Your task to perform on an android device: turn on the 24-hour format for clock Image 0: 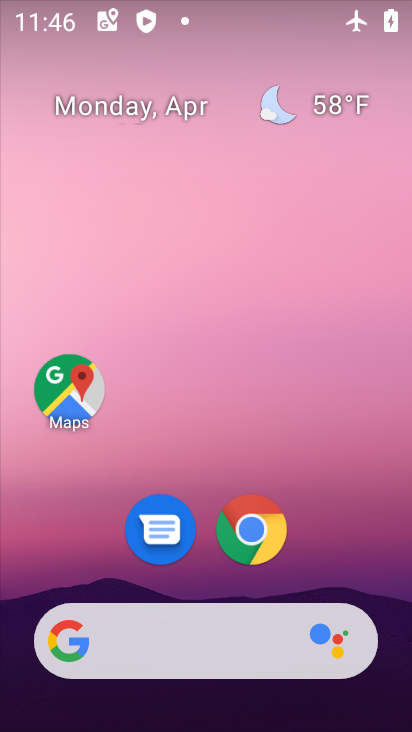
Step 0: drag from (392, 594) to (275, 127)
Your task to perform on an android device: turn on the 24-hour format for clock Image 1: 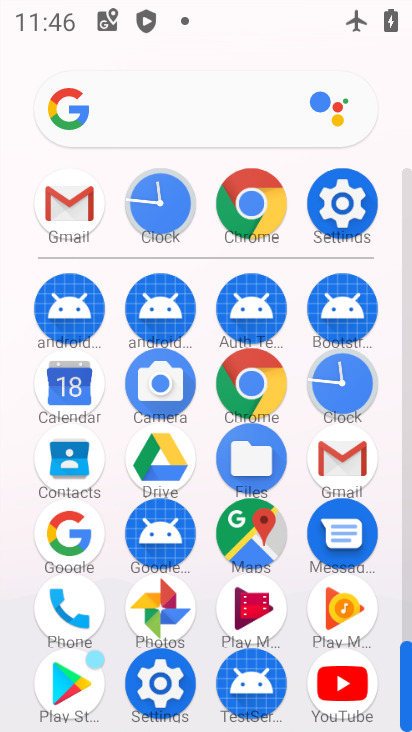
Step 1: click (315, 383)
Your task to perform on an android device: turn on the 24-hour format for clock Image 2: 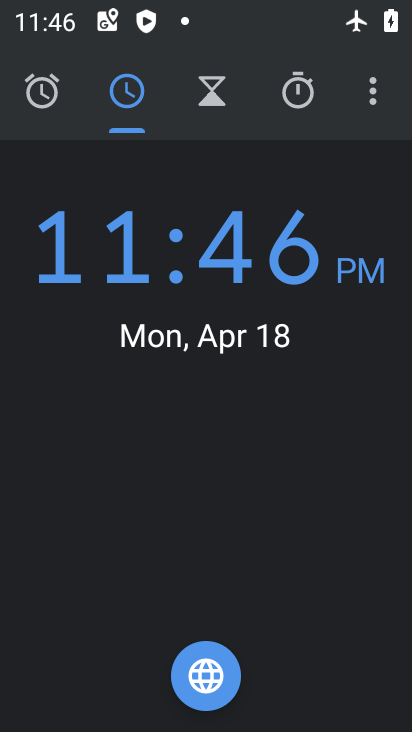
Step 2: click (373, 83)
Your task to perform on an android device: turn on the 24-hour format for clock Image 3: 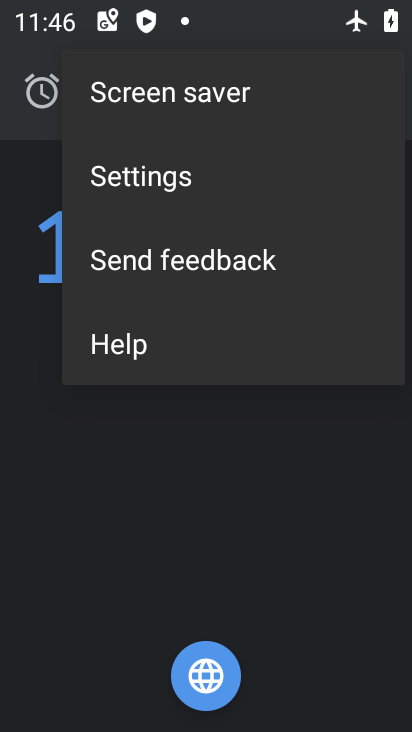
Step 3: click (227, 172)
Your task to perform on an android device: turn on the 24-hour format for clock Image 4: 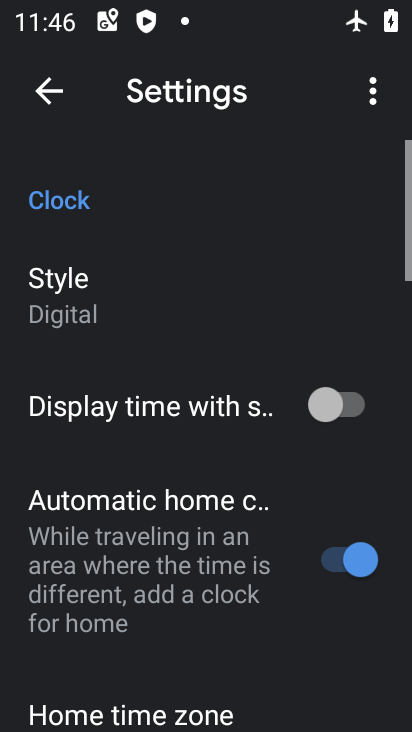
Step 4: drag from (159, 603) to (212, 144)
Your task to perform on an android device: turn on the 24-hour format for clock Image 5: 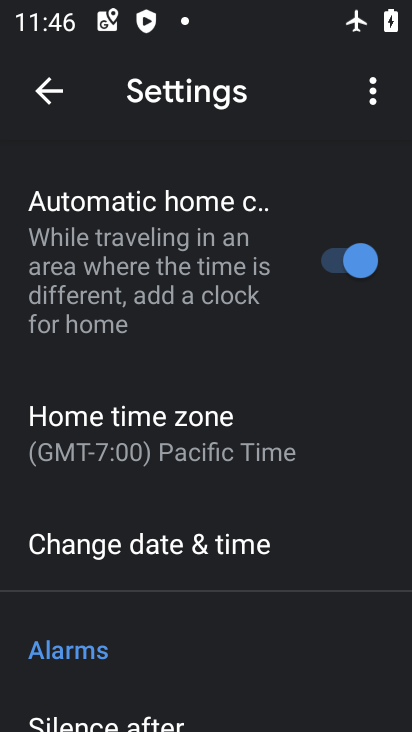
Step 5: click (178, 539)
Your task to perform on an android device: turn on the 24-hour format for clock Image 6: 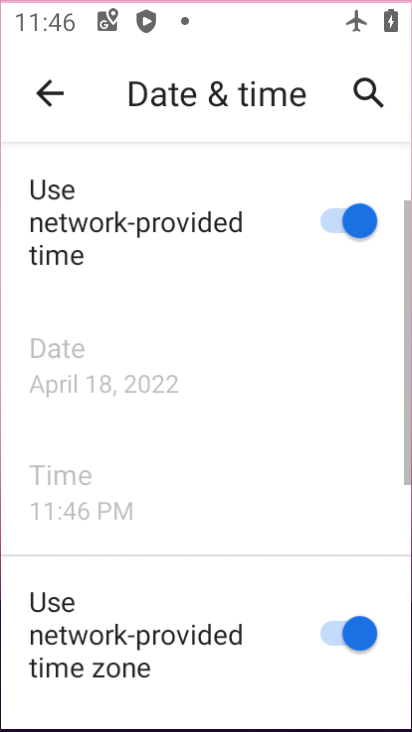
Step 6: task complete